Your task to perform on an android device: Do I have any events this weekend? Image 0: 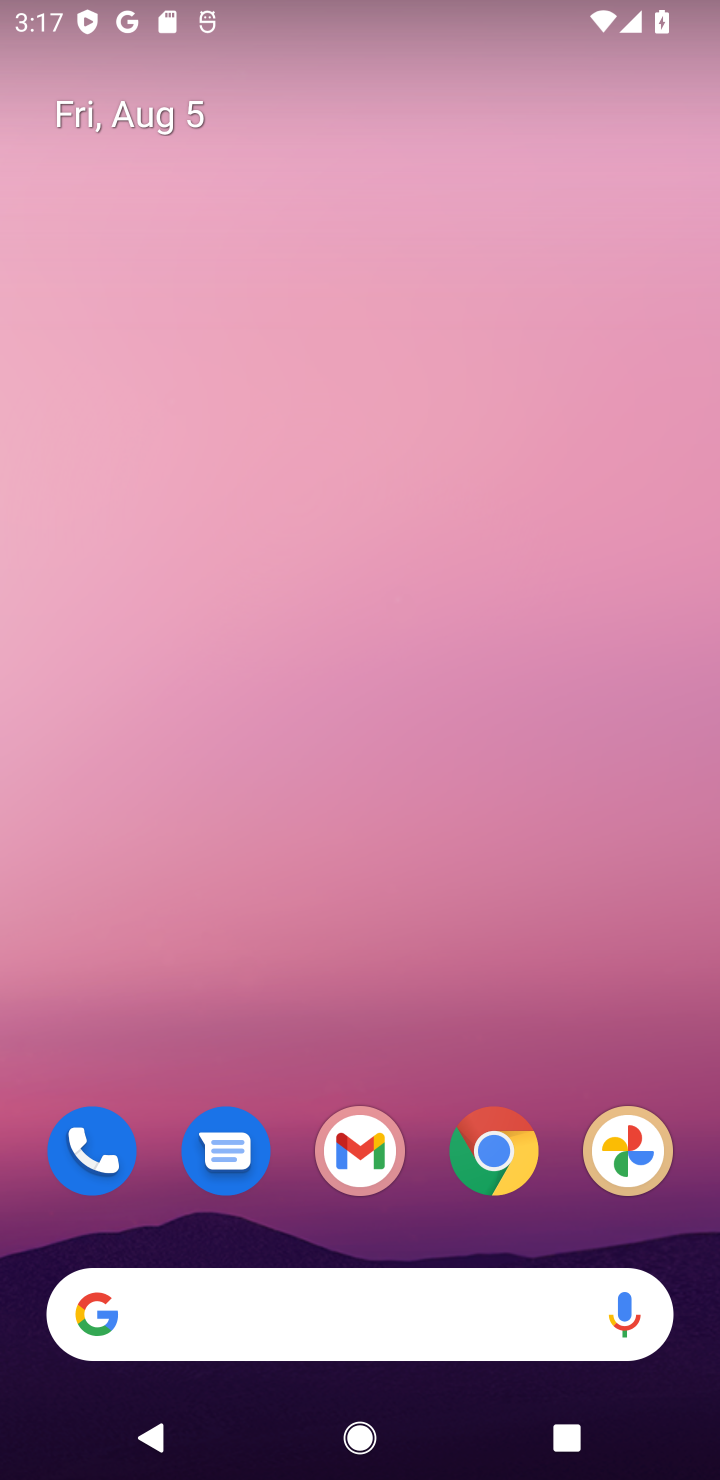
Step 0: drag from (344, 802) to (427, 6)
Your task to perform on an android device: Do I have any events this weekend? Image 1: 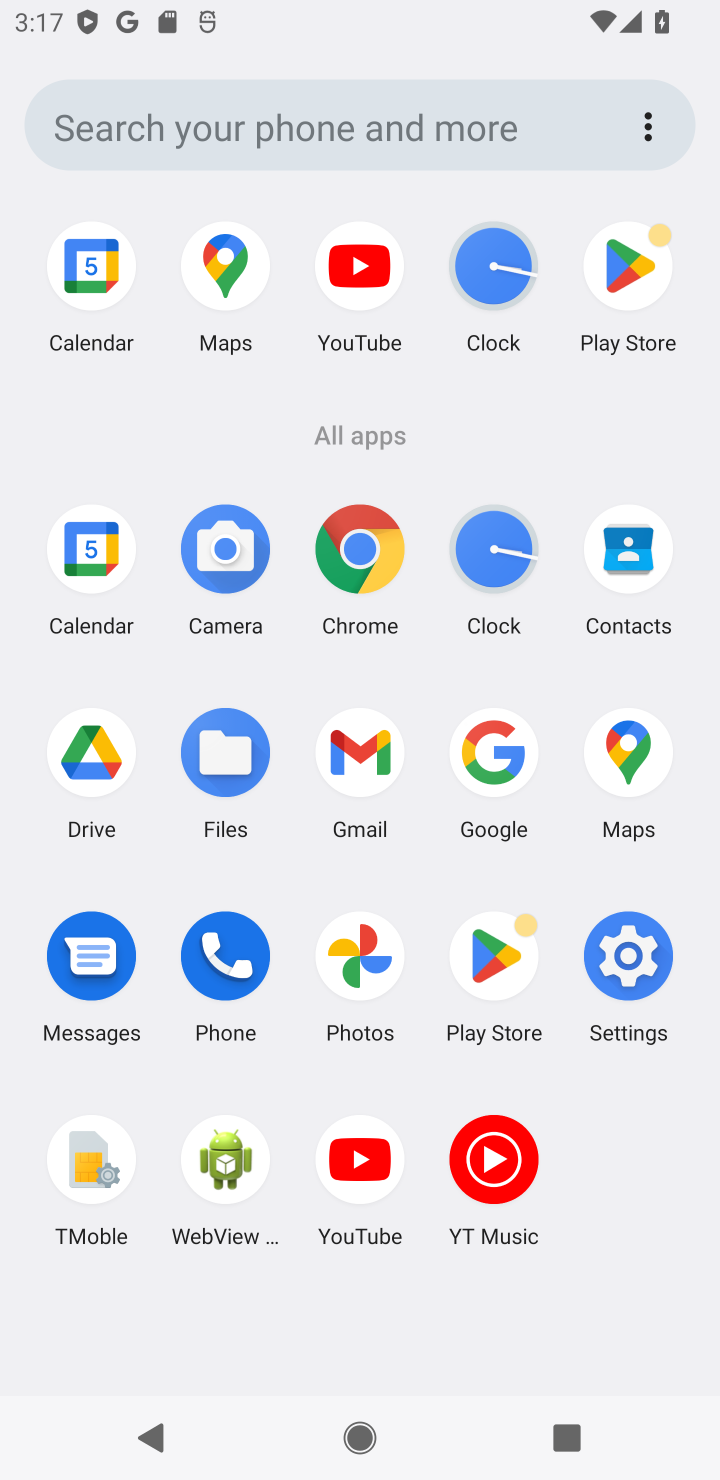
Step 1: click (85, 263)
Your task to perform on an android device: Do I have any events this weekend? Image 2: 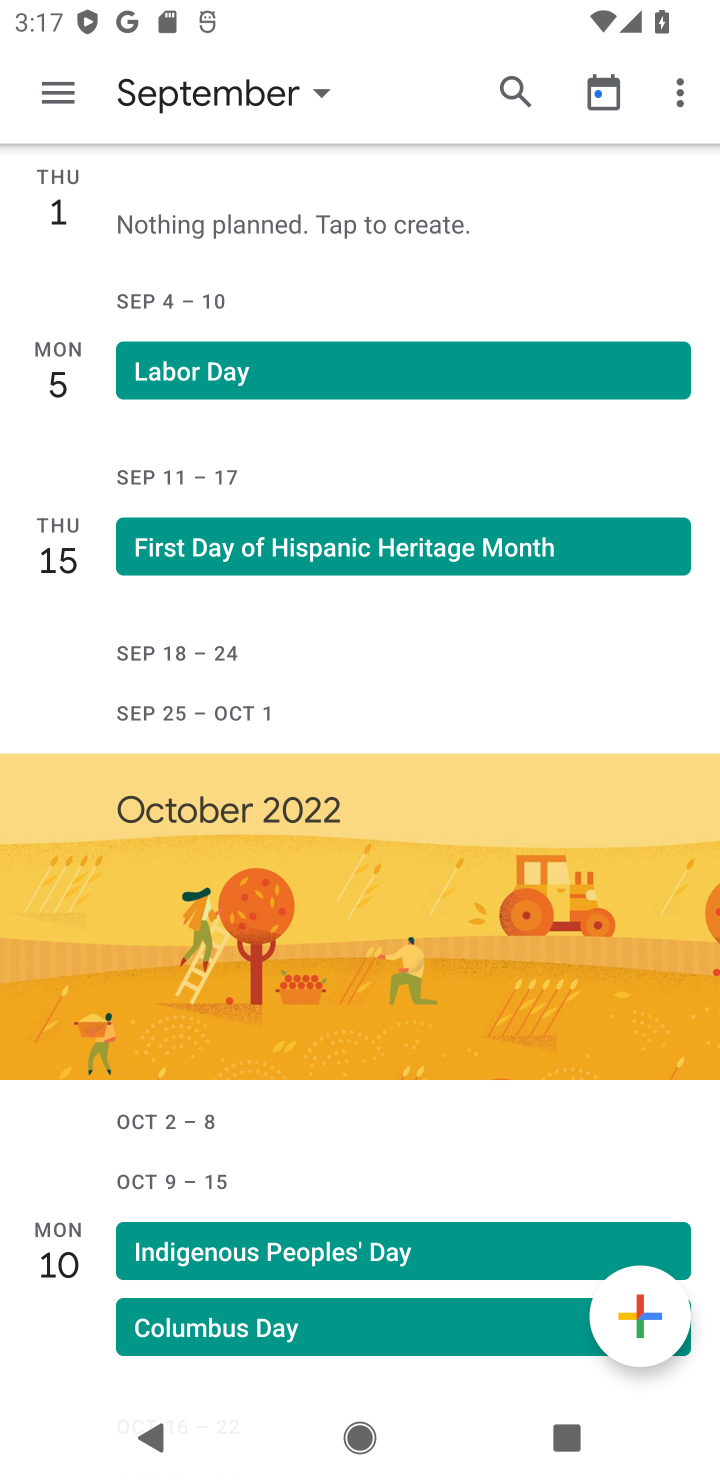
Step 2: click (269, 84)
Your task to perform on an android device: Do I have any events this weekend? Image 3: 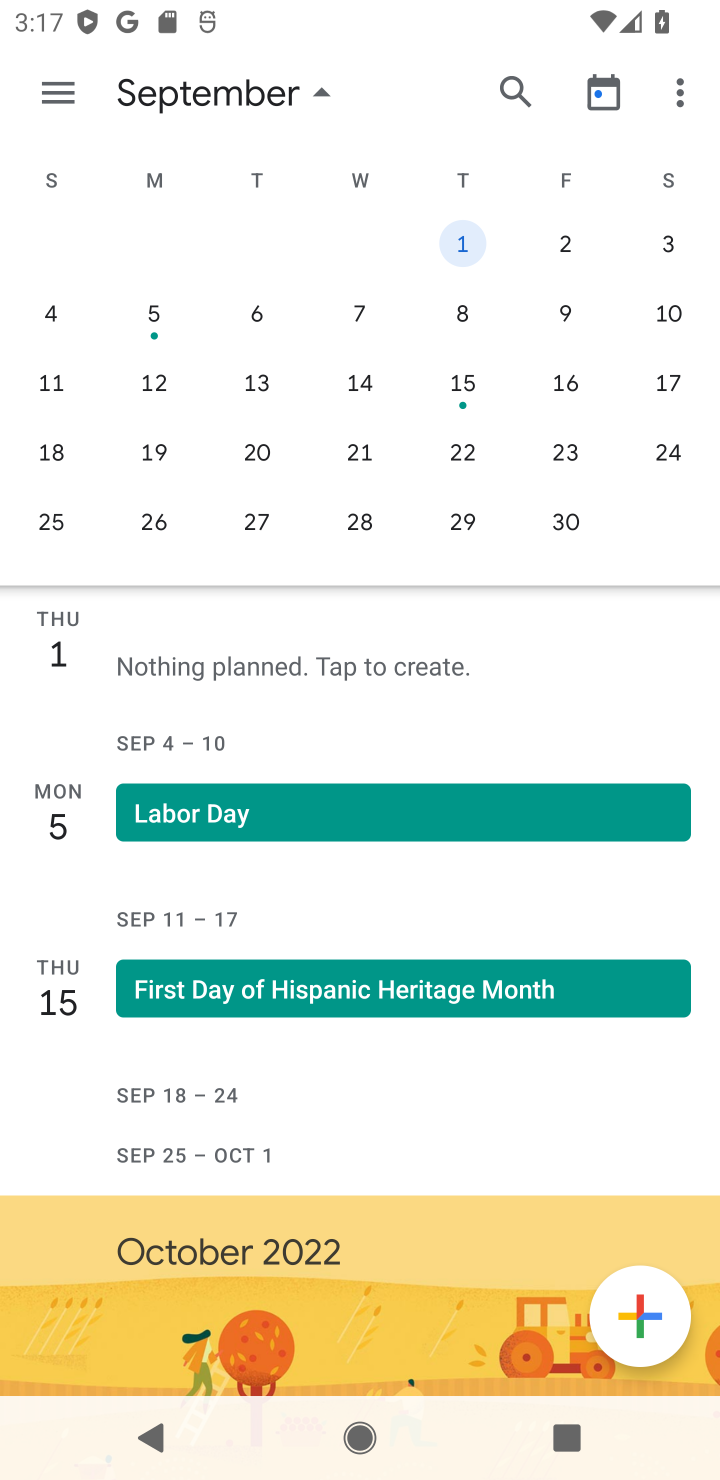
Step 3: drag from (118, 336) to (677, 221)
Your task to perform on an android device: Do I have any events this weekend? Image 4: 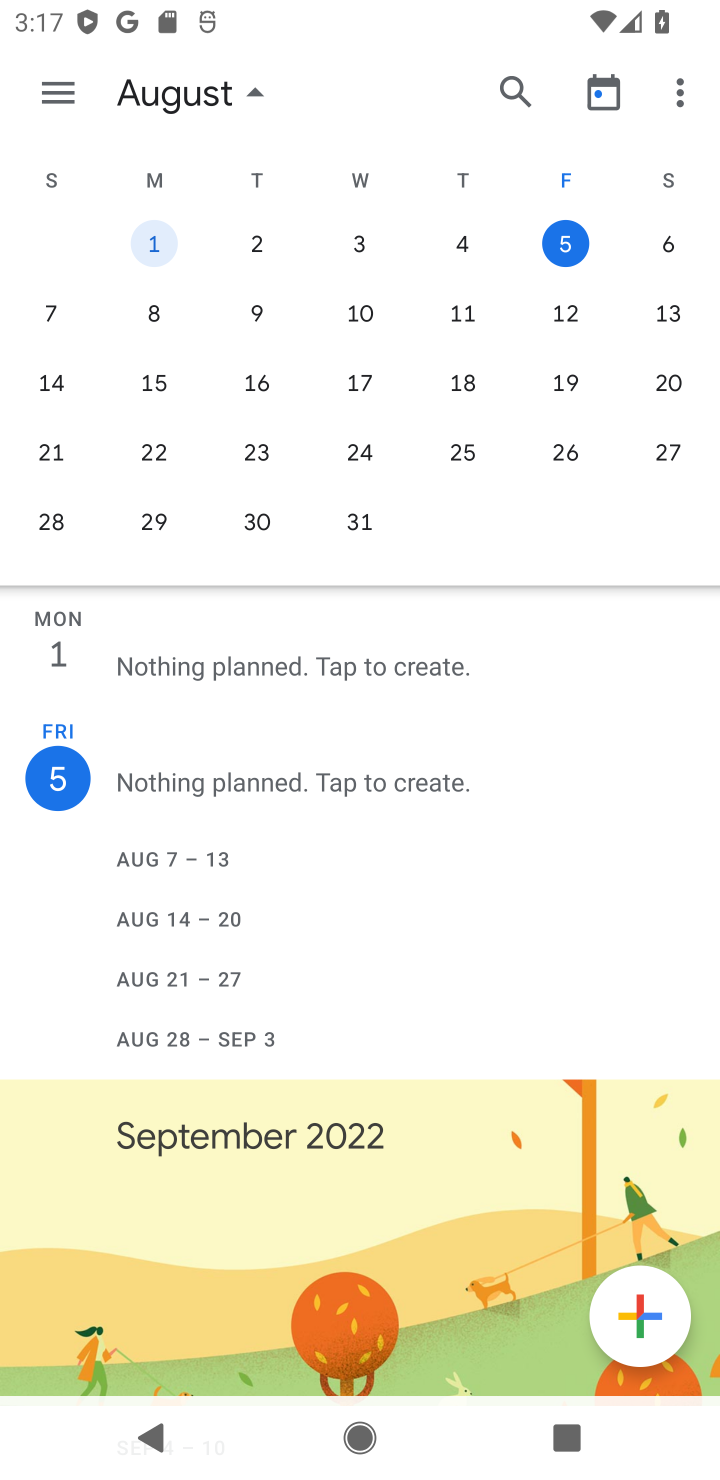
Step 4: click (658, 234)
Your task to perform on an android device: Do I have any events this weekend? Image 5: 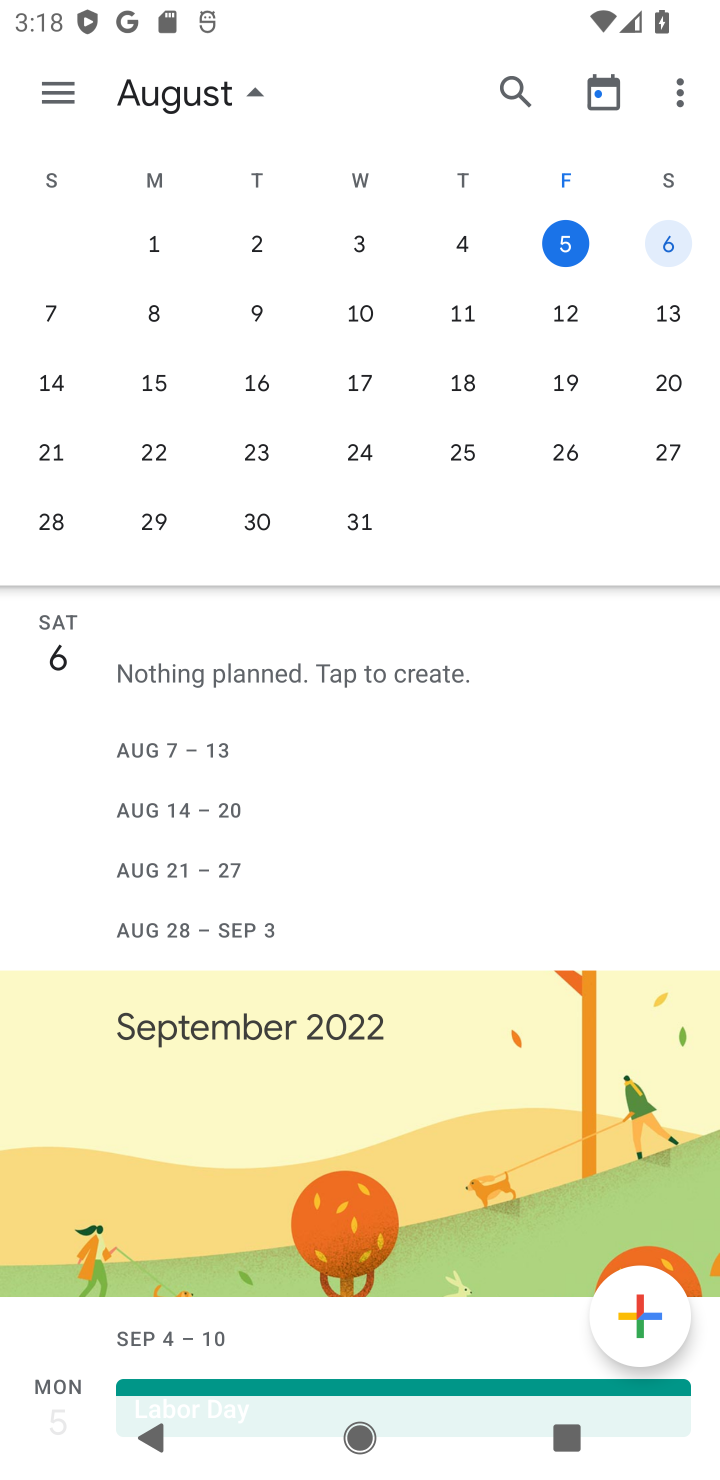
Step 5: task complete